Your task to perform on an android device: Open Google Chrome and open the bookmarks view Image 0: 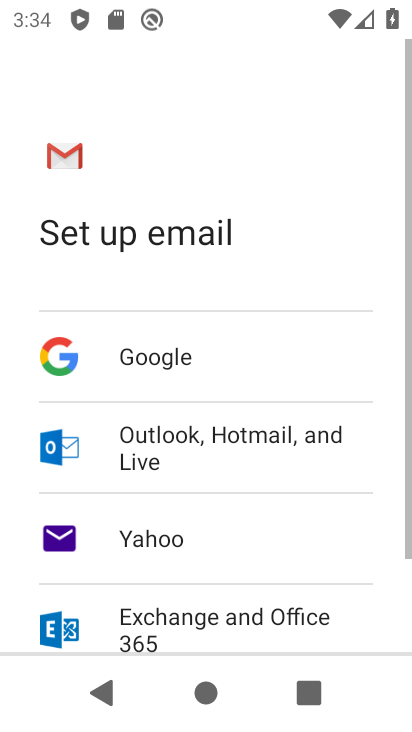
Step 0: press home button
Your task to perform on an android device: Open Google Chrome and open the bookmarks view Image 1: 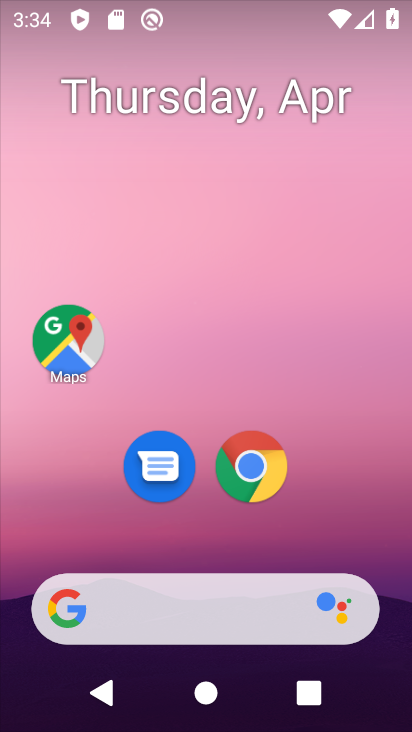
Step 1: click (245, 468)
Your task to perform on an android device: Open Google Chrome and open the bookmarks view Image 2: 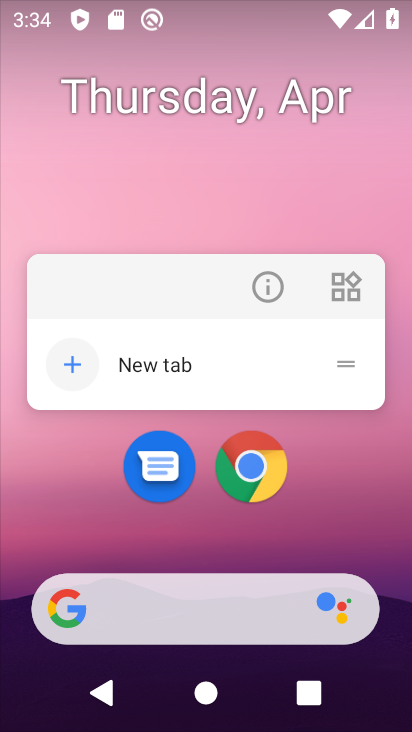
Step 2: click (256, 457)
Your task to perform on an android device: Open Google Chrome and open the bookmarks view Image 3: 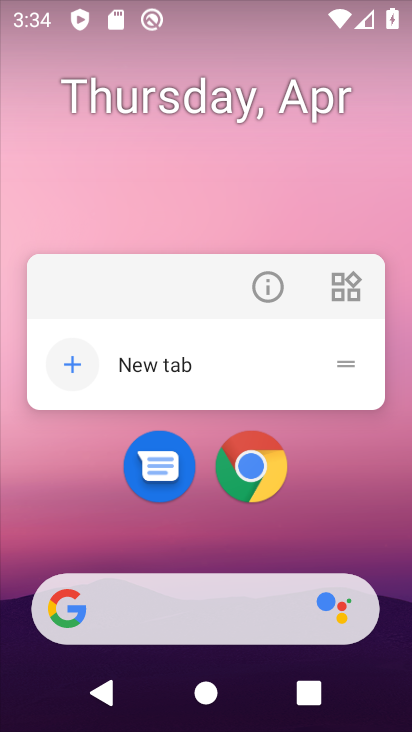
Step 3: click (243, 457)
Your task to perform on an android device: Open Google Chrome and open the bookmarks view Image 4: 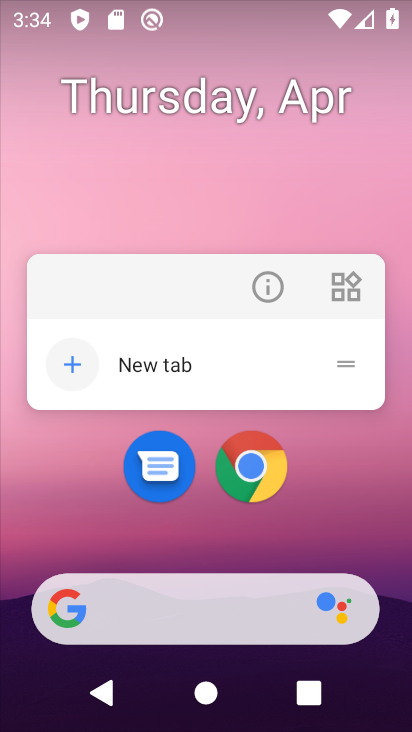
Step 4: click (243, 457)
Your task to perform on an android device: Open Google Chrome and open the bookmarks view Image 5: 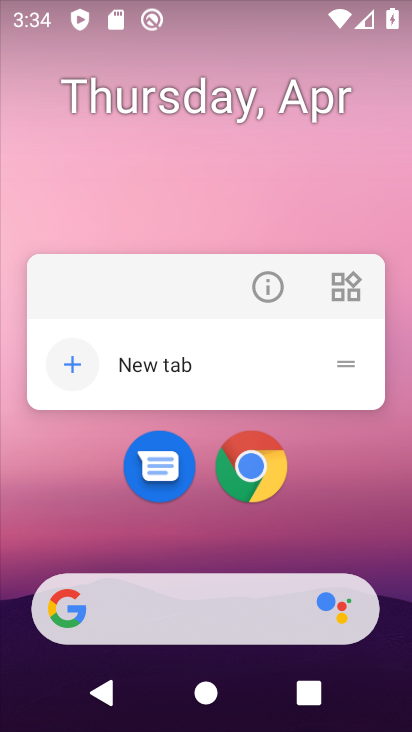
Step 5: click (255, 471)
Your task to perform on an android device: Open Google Chrome and open the bookmarks view Image 6: 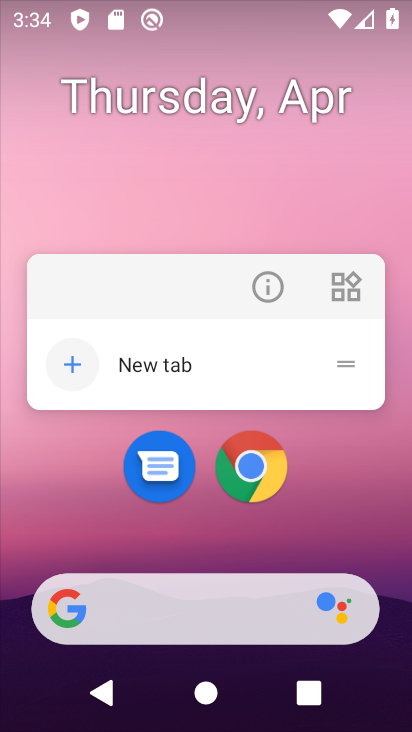
Step 6: click (256, 472)
Your task to perform on an android device: Open Google Chrome and open the bookmarks view Image 7: 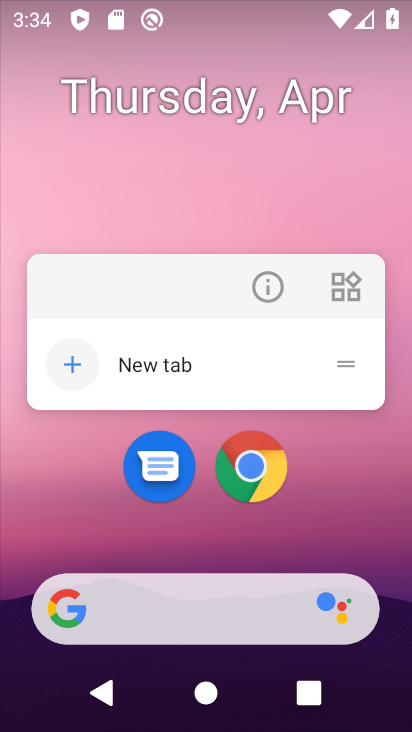
Step 7: click (256, 472)
Your task to perform on an android device: Open Google Chrome and open the bookmarks view Image 8: 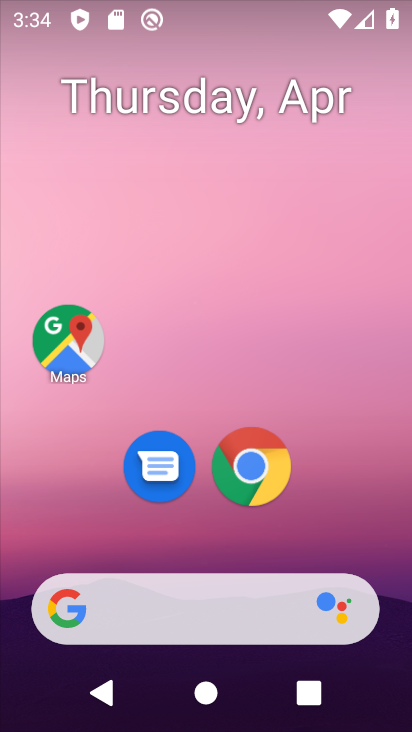
Step 8: click (256, 472)
Your task to perform on an android device: Open Google Chrome and open the bookmarks view Image 9: 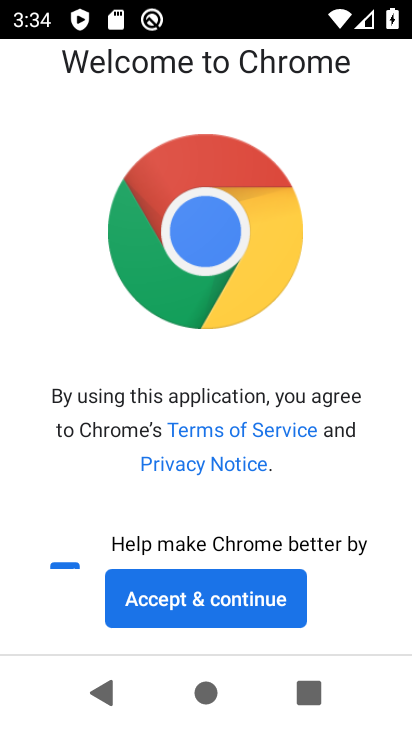
Step 9: click (243, 599)
Your task to perform on an android device: Open Google Chrome and open the bookmarks view Image 10: 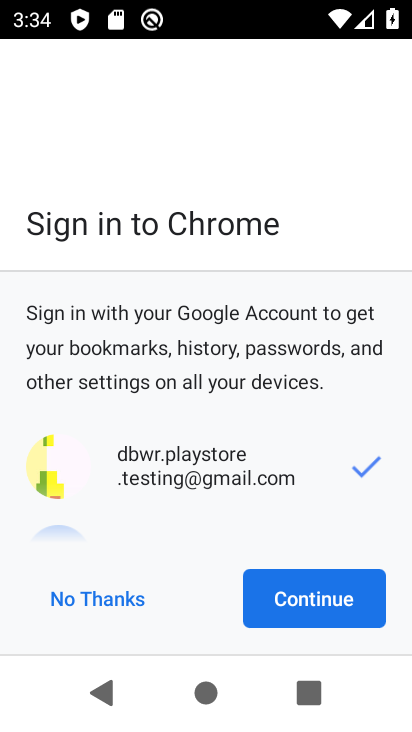
Step 10: click (308, 602)
Your task to perform on an android device: Open Google Chrome and open the bookmarks view Image 11: 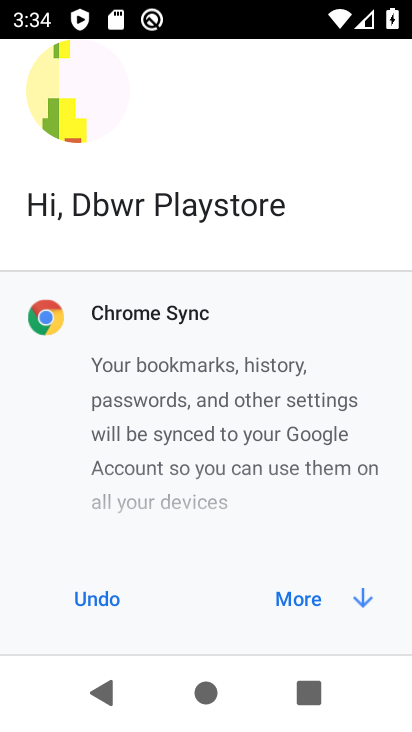
Step 11: click (307, 598)
Your task to perform on an android device: Open Google Chrome and open the bookmarks view Image 12: 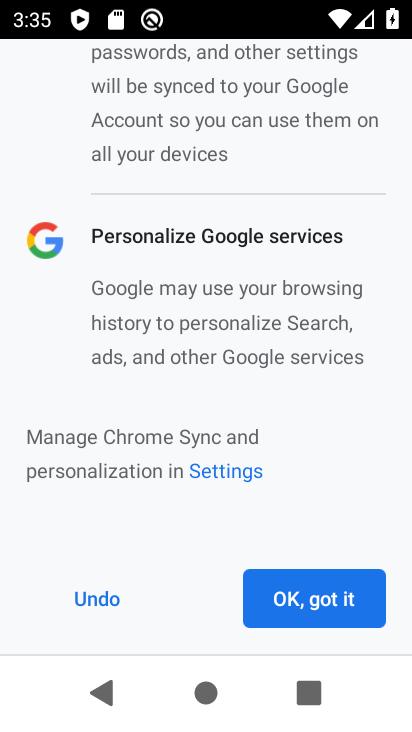
Step 12: click (299, 598)
Your task to perform on an android device: Open Google Chrome and open the bookmarks view Image 13: 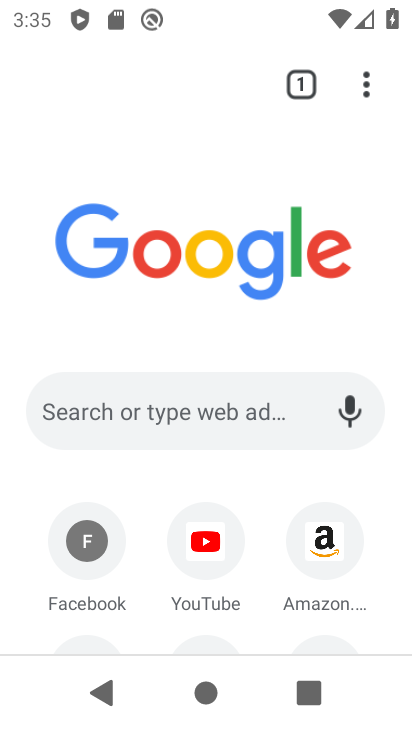
Step 13: task complete